Your task to perform on an android device: add a contact in the contacts app Image 0: 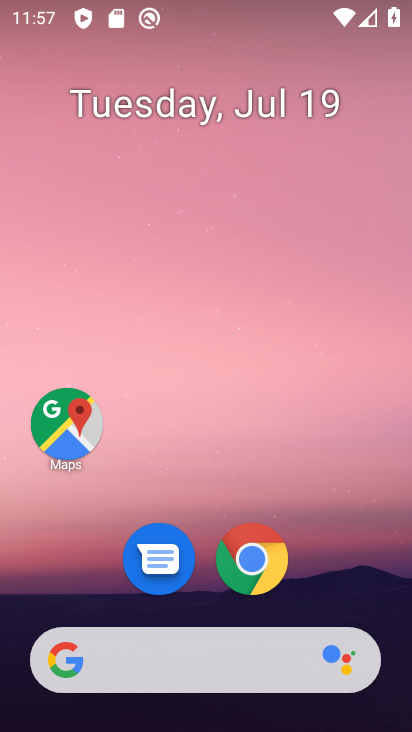
Step 0: drag from (353, 600) to (374, 183)
Your task to perform on an android device: add a contact in the contacts app Image 1: 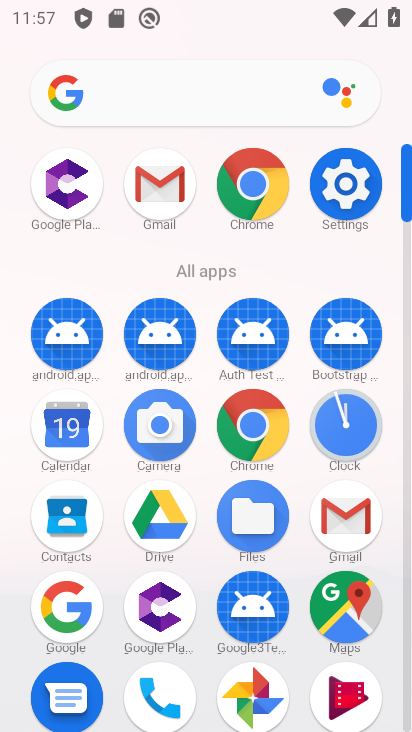
Step 1: click (65, 518)
Your task to perform on an android device: add a contact in the contacts app Image 2: 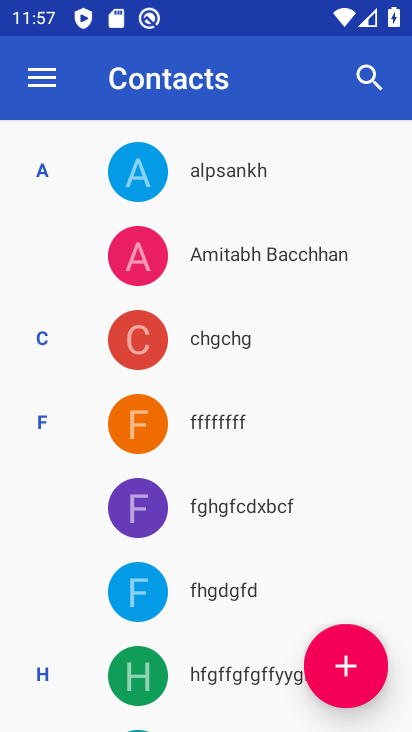
Step 2: click (351, 662)
Your task to perform on an android device: add a contact in the contacts app Image 3: 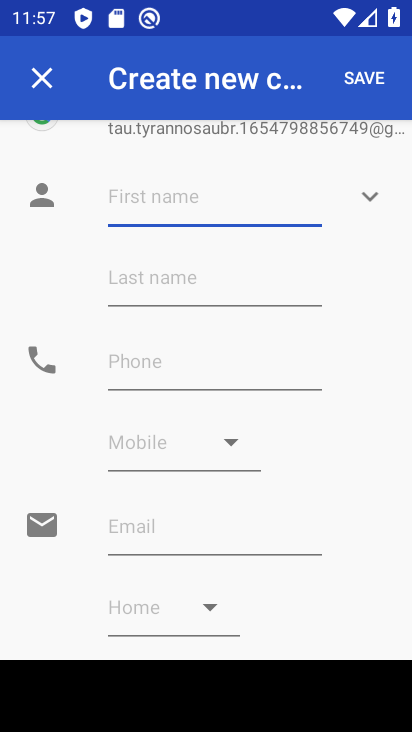
Step 3: type "lolololo"
Your task to perform on an android device: add a contact in the contacts app Image 4: 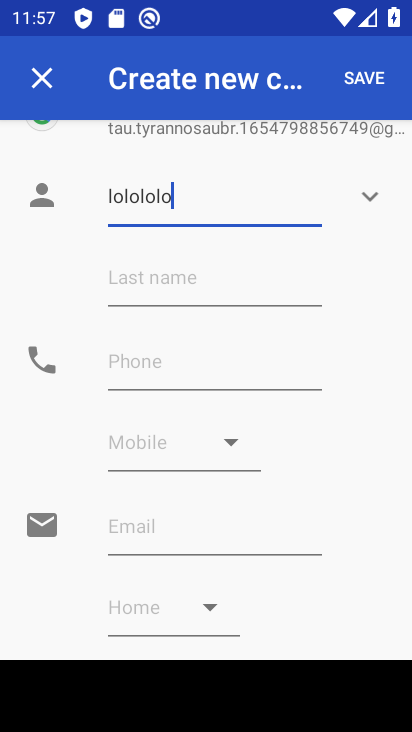
Step 4: click (235, 379)
Your task to perform on an android device: add a contact in the contacts app Image 5: 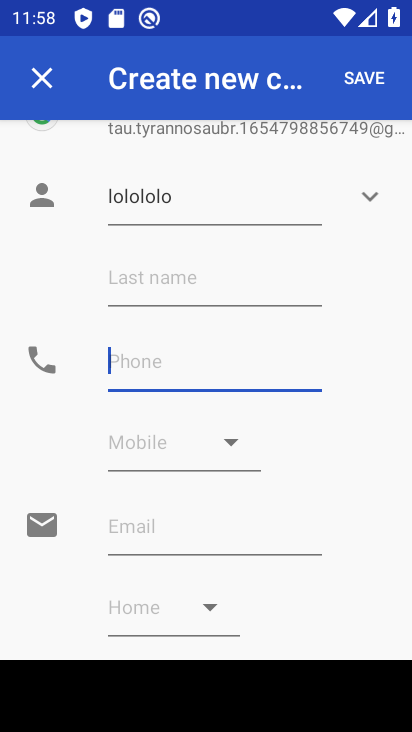
Step 5: type "12345567"
Your task to perform on an android device: add a contact in the contacts app Image 6: 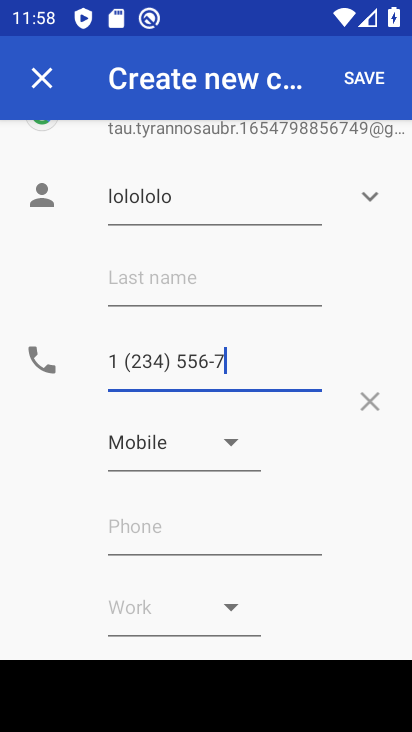
Step 6: click (361, 77)
Your task to perform on an android device: add a contact in the contacts app Image 7: 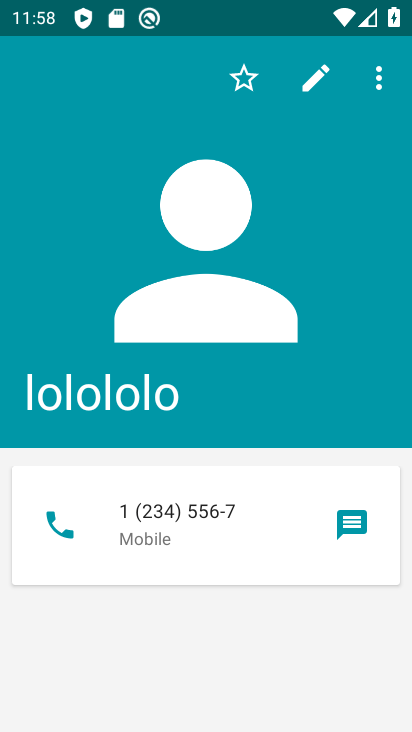
Step 7: task complete